Your task to perform on an android device: turn pop-ups on in chrome Image 0: 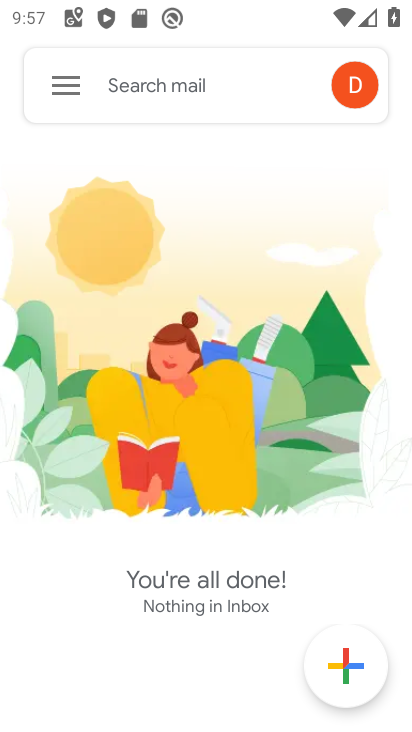
Step 0: press home button
Your task to perform on an android device: turn pop-ups on in chrome Image 1: 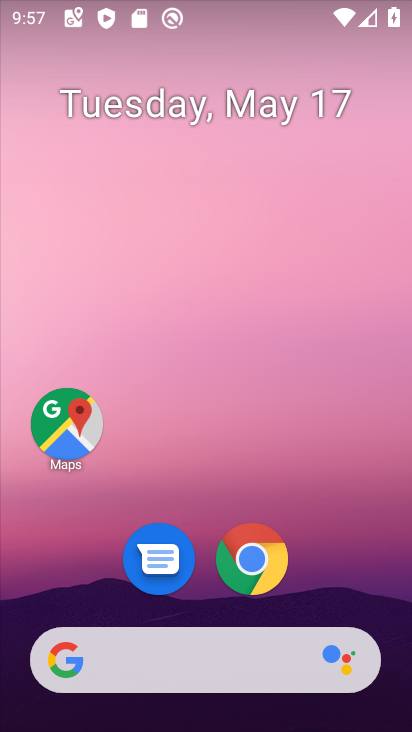
Step 1: click (248, 573)
Your task to perform on an android device: turn pop-ups on in chrome Image 2: 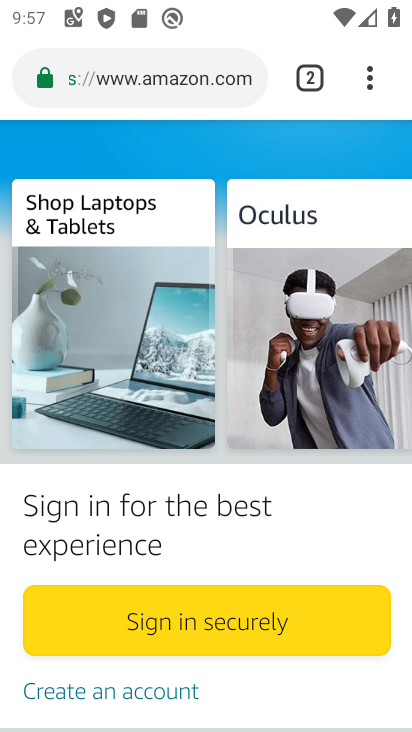
Step 2: click (377, 69)
Your task to perform on an android device: turn pop-ups on in chrome Image 3: 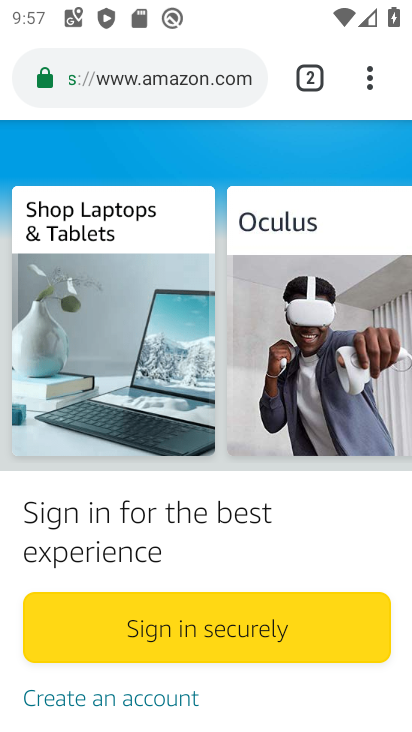
Step 3: click (370, 79)
Your task to perform on an android device: turn pop-ups on in chrome Image 4: 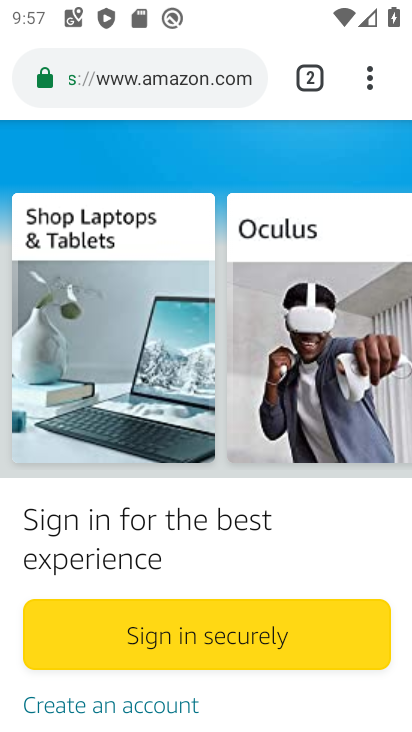
Step 4: click (369, 85)
Your task to perform on an android device: turn pop-ups on in chrome Image 5: 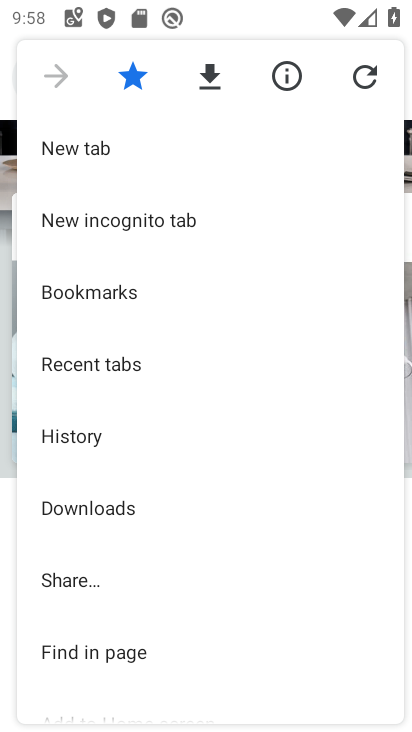
Step 5: drag from (196, 662) to (266, 86)
Your task to perform on an android device: turn pop-ups on in chrome Image 6: 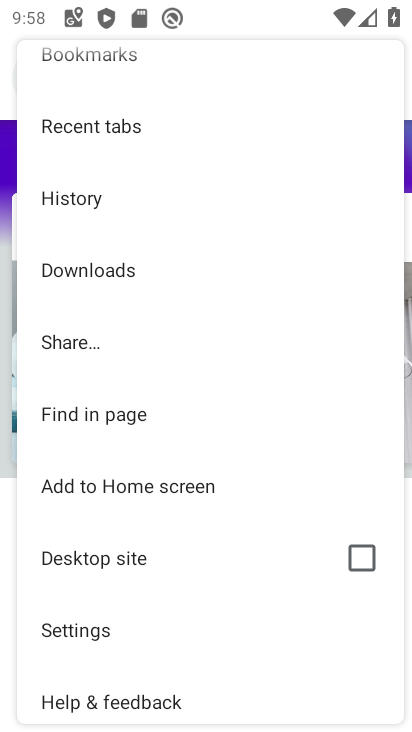
Step 6: click (78, 633)
Your task to perform on an android device: turn pop-ups on in chrome Image 7: 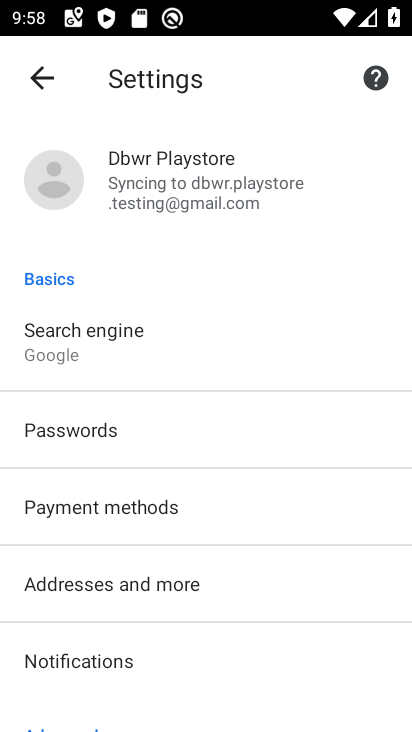
Step 7: drag from (239, 566) to (259, 39)
Your task to perform on an android device: turn pop-ups on in chrome Image 8: 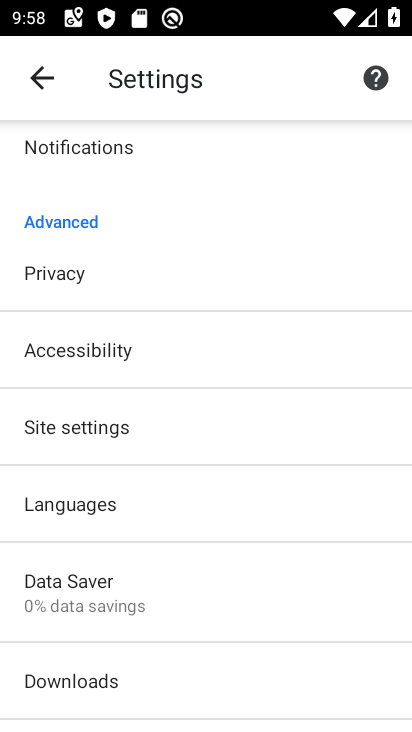
Step 8: click (164, 431)
Your task to perform on an android device: turn pop-ups on in chrome Image 9: 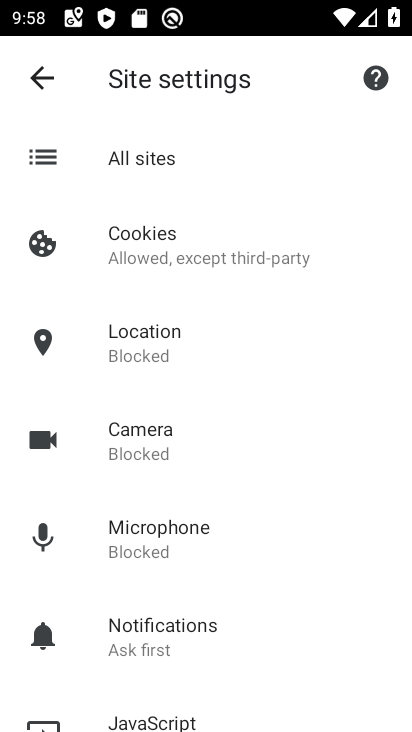
Step 9: drag from (316, 709) to (215, 17)
Your task to perform on an android device: turn pop-ups on in chrome Image 10: 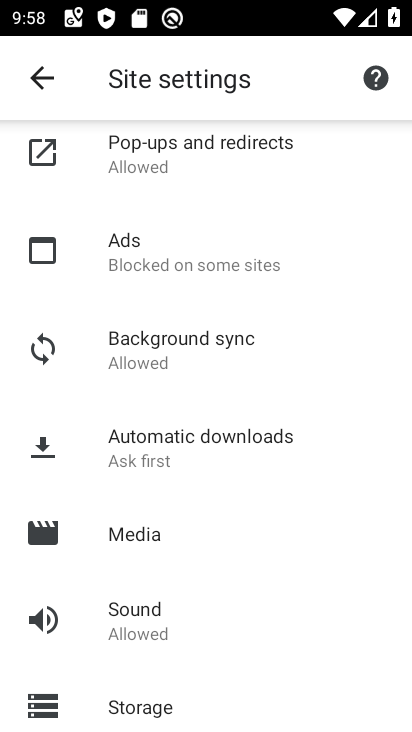
Step 10: click (252, 155)
Your task to perform on an android device: turn pop-ups on in chrome Image 11: 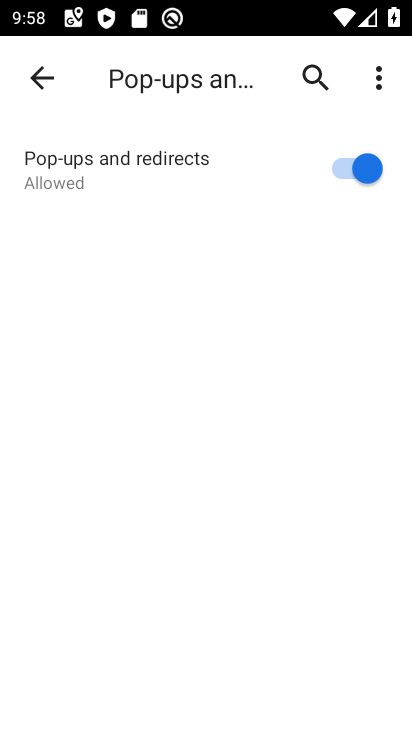
Step 11: task complete